Your task to perform on an android device: show emergency info Image 0: 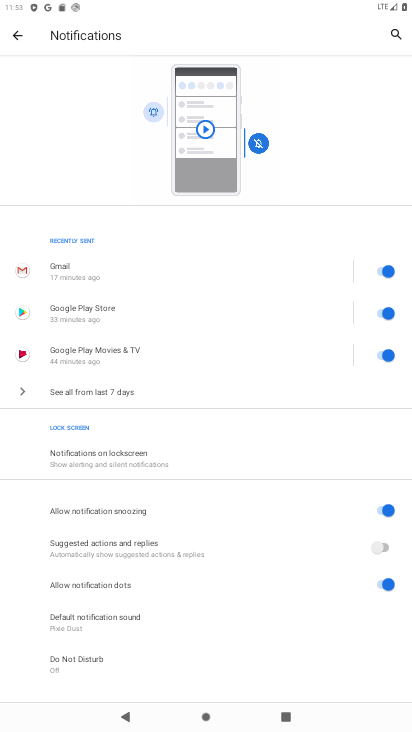
Step 0: press home button
Your task to perform on an android device: show emergency info Image 1: 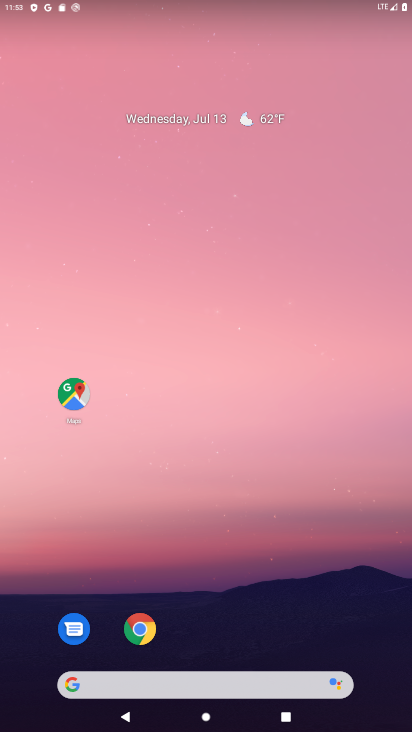
Step 1: drag from (239, 624) to (215, 21)
Your task to perform on an android device: show emergency info Image 2: 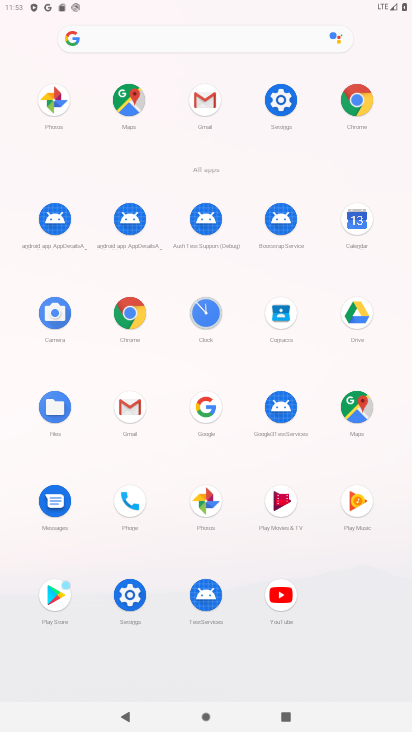
Step 2: click (288, 96)
Your task to perform on an android device: show emergency info Image 3: 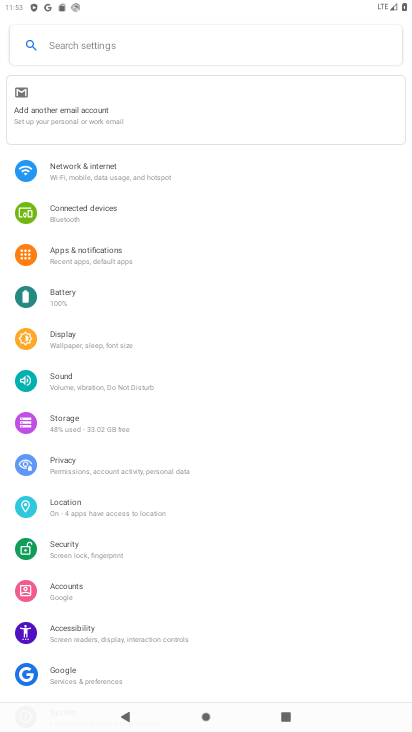
Step 3: drag from (82, 397) to (75, 132)
Your task to perform on an android device: show emergency info Image 4: 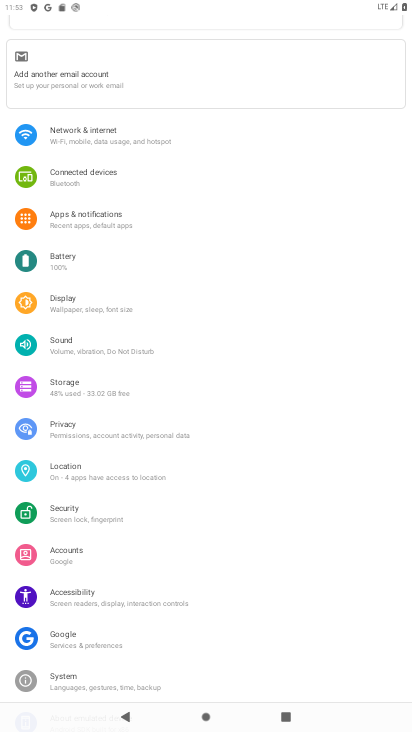
Step 4: drag from (149, 118) to (141, 15)
Your task to perform on an android device: show emergency info Image 5: 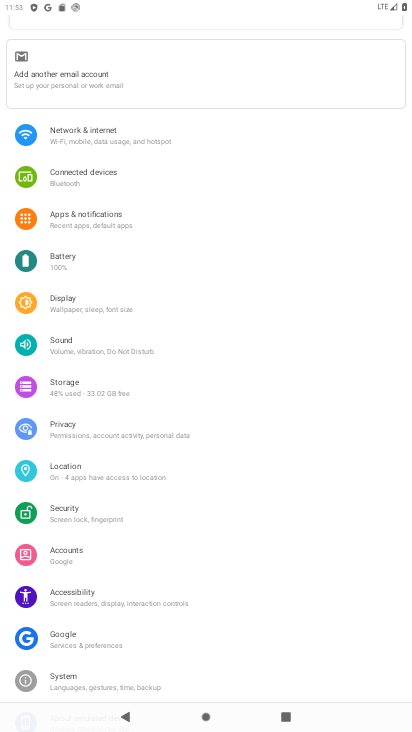
Step 5: drag from (169, 652) to (182, 150)
Your task to perform on an android device: show emergency info Image 6: 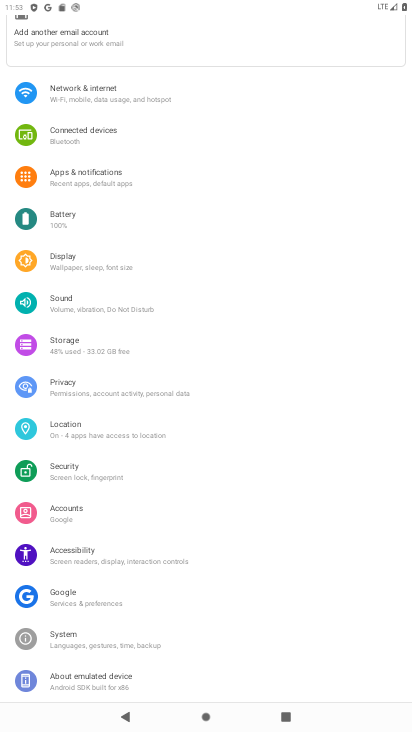
Step 6: click (75, 672)
Your task to perform on an android device: show emergency info Image 7: 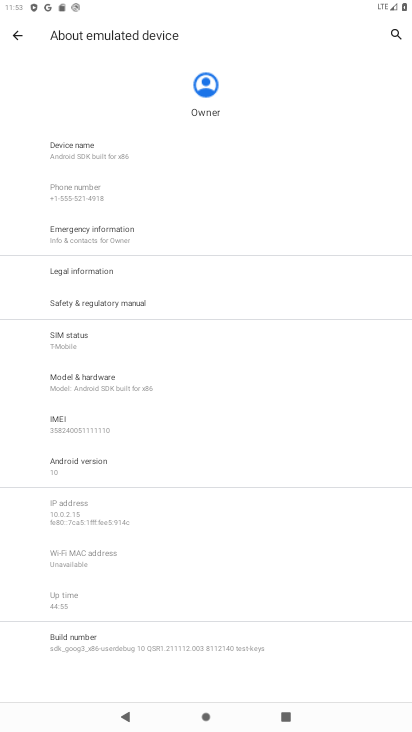
Step 7: click (167, 235)
Your task to perform on an android device: show emergency info Image 8: 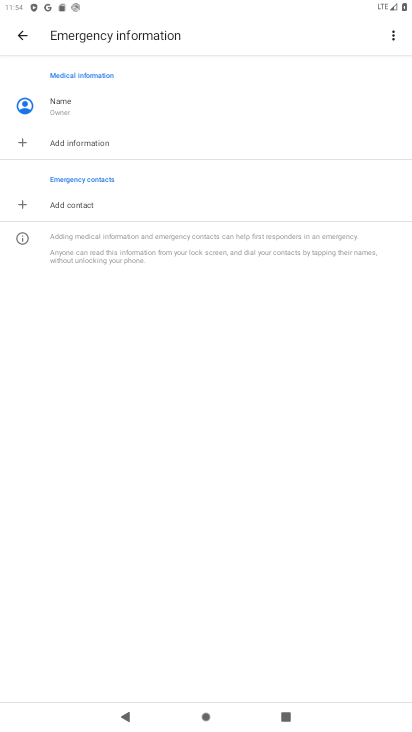
Step 8: task complete